Your task to perform on an android device: What's the weather today? Image 0: 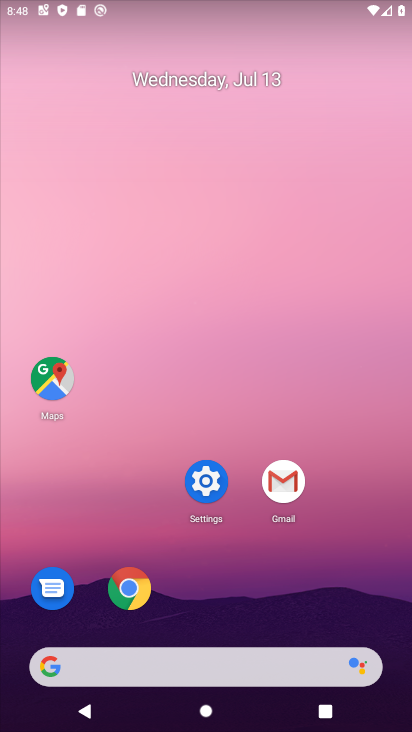
Step 0: drag from (5, 206) to (408, 377)
Your task to perform on an android device: What's the weather today? Image 1: 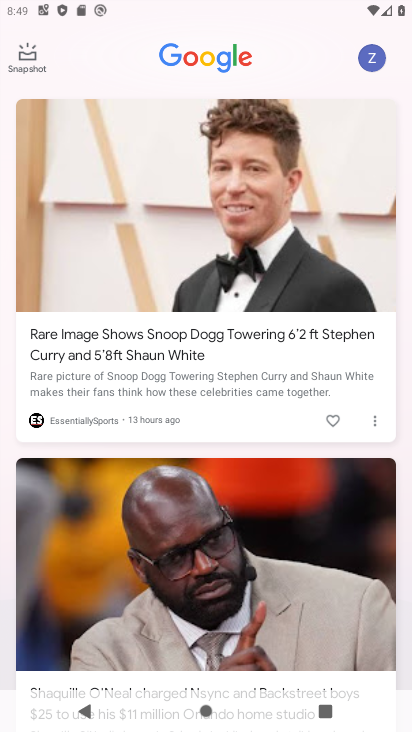
Step 1: task complete